Your task to perform on an android device: check battery use Image 0: 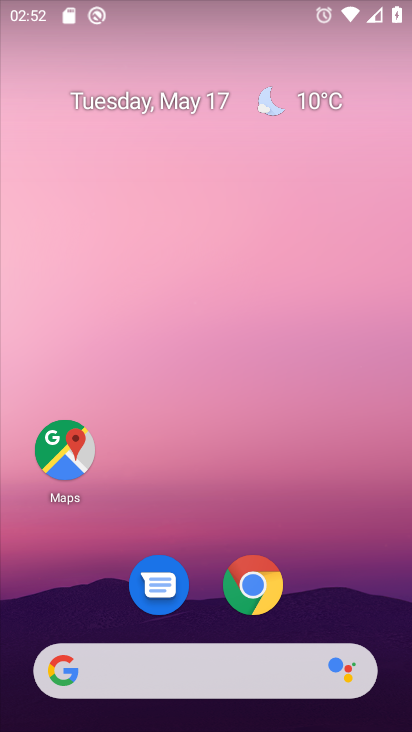
Step 0: drag from (277, 512) to (272, 0)
Your task to perform on an android device: check battery use Image 1: 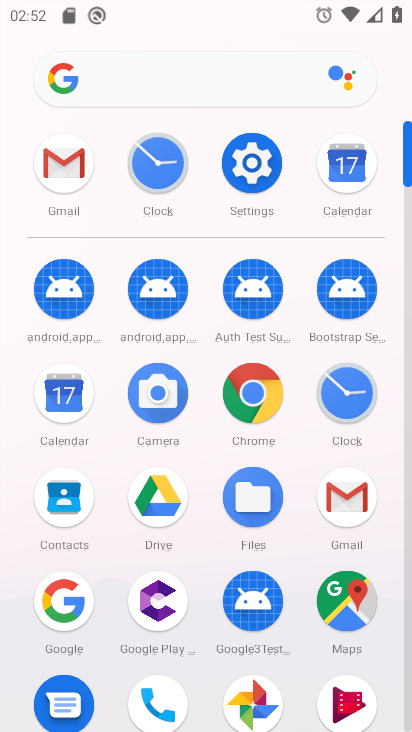
Step 1: click (242, 167)
Your task to perform on an android device: check battery use Image 2: 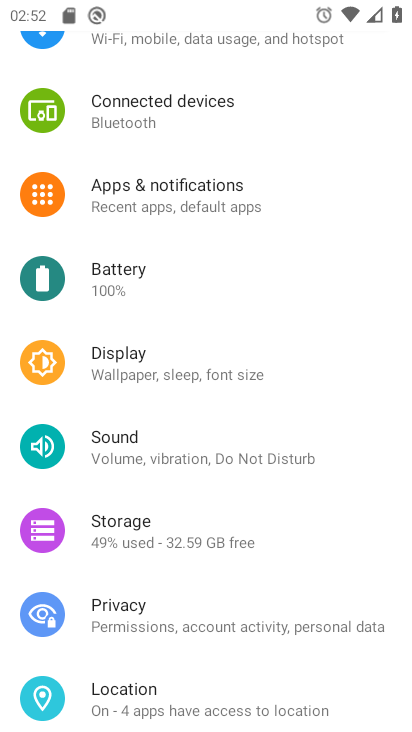
Step 2: click (181, 361)
Your task to perform on an android device: check battery use Image 3: 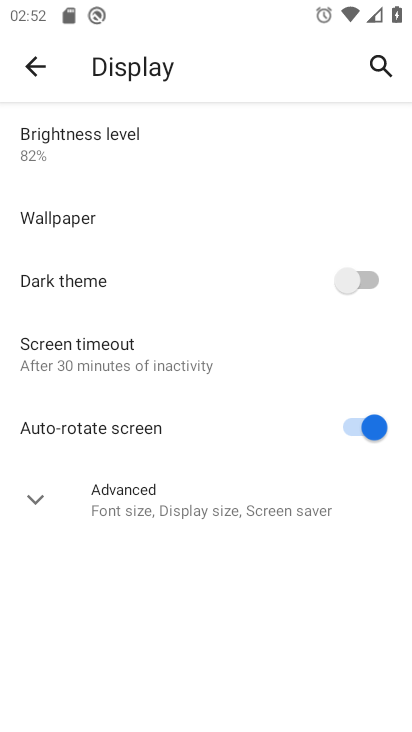
Step 3: click (32, 65)
Your task to perform on an android device: check battery use Image 4: 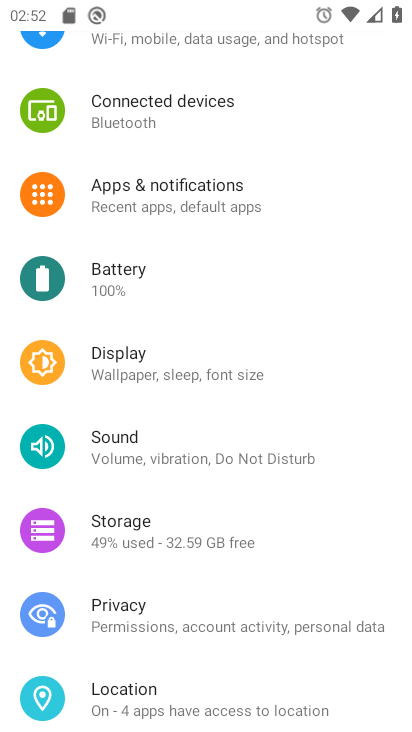
Step 4: click (144, 279)
Your task to perform on an android device: check battery use Image 5: 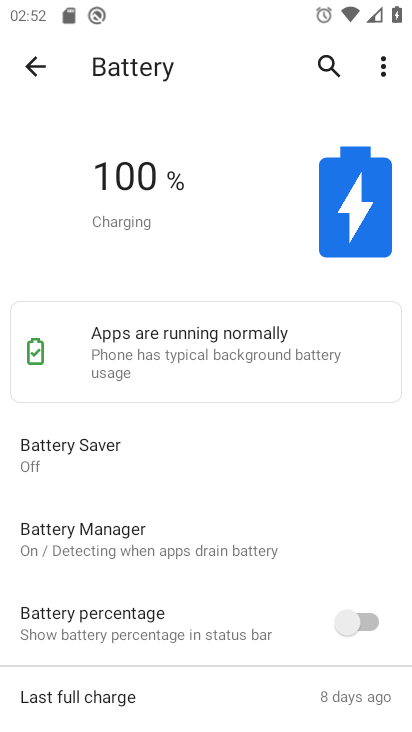
Step 5: click (386, 64)
Your task to perform on an android device: check battery use Image 6: 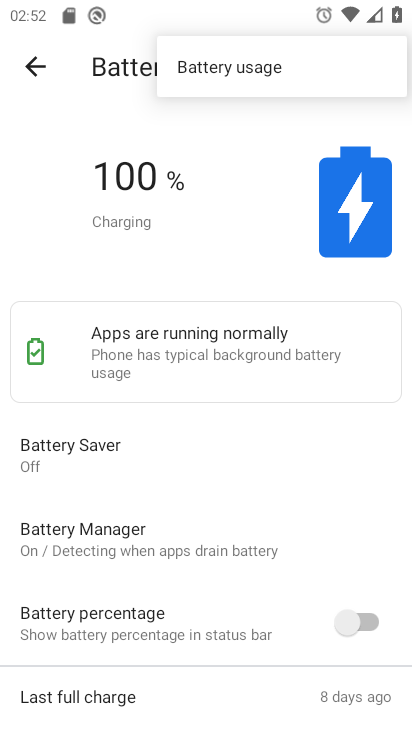
Step 6: click (312, 68)
Your task to perform on an android device: check battery use Image 7: 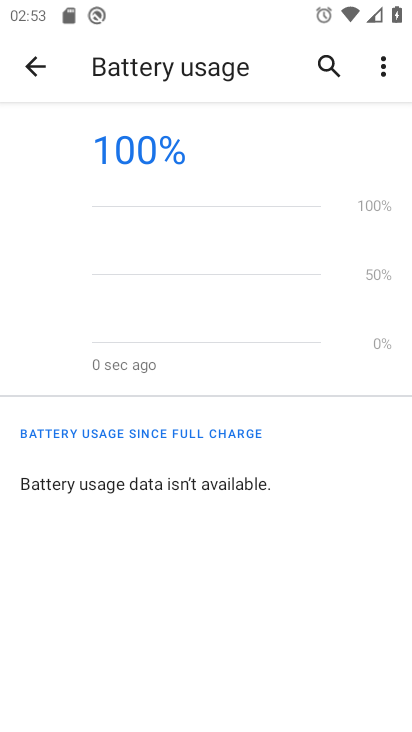
Step 7: task complete